Your task to perform on an android device: allow notifications from all sites in the chrome app Image 0: 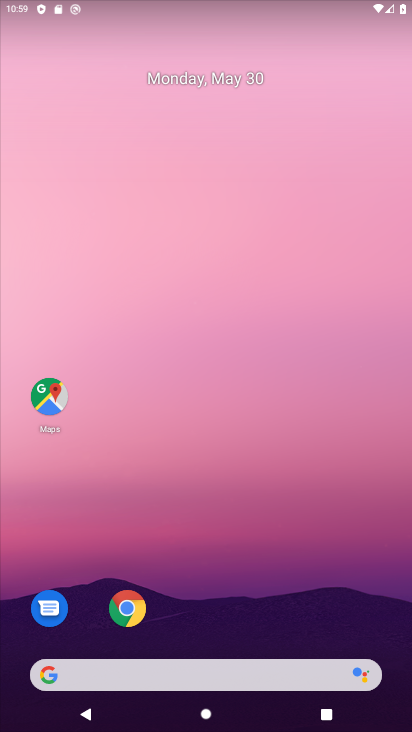
Step 0: click (130, 612)
Your task to perform on an android device: allow notifications from all sites in the chrome app Image 1: 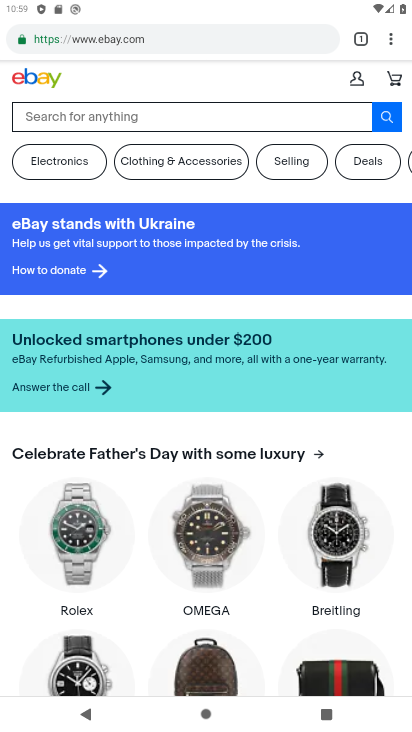
Step 1: click (390, 42)
Your task to perform on an android device: allow notifications from all sites in the chrome app Image 2: 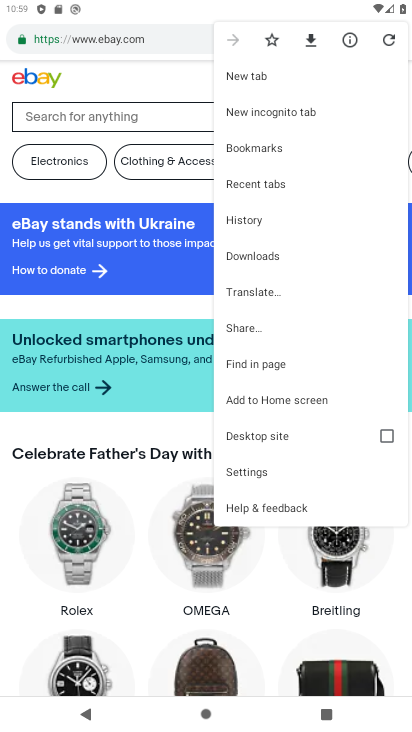
Step 2: click (252, 474)
Your task to perform on an android device: allow notifications from all sites in the chrome app Image 3: 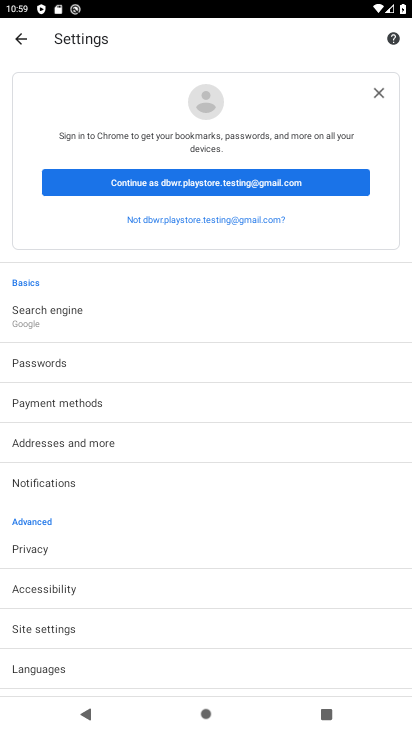
Step 3: click (42, 626)
Your task to perform on an android device: allow notifications from all sites in the chrome app Image 4: 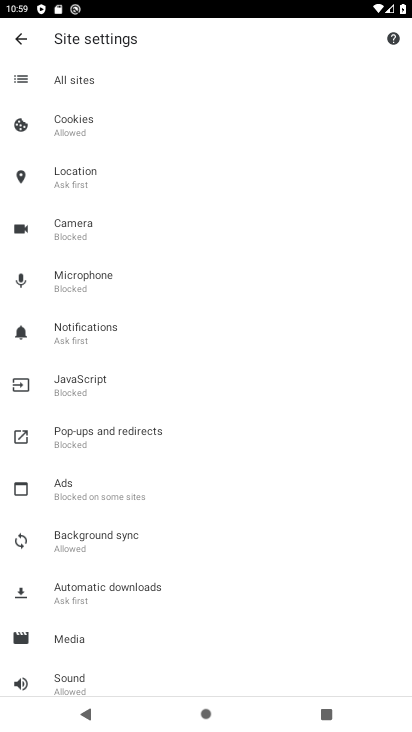
Step 4: click (93, 334)
Your task to perform on an android device: allow notifications from all sites in the chrome app Image 5: 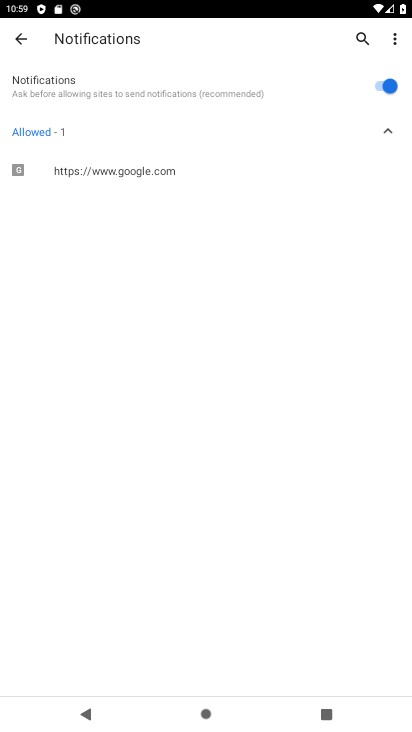
Step 5: task complete